Your task to perform on an android device: turn off sleep mode Image 0: 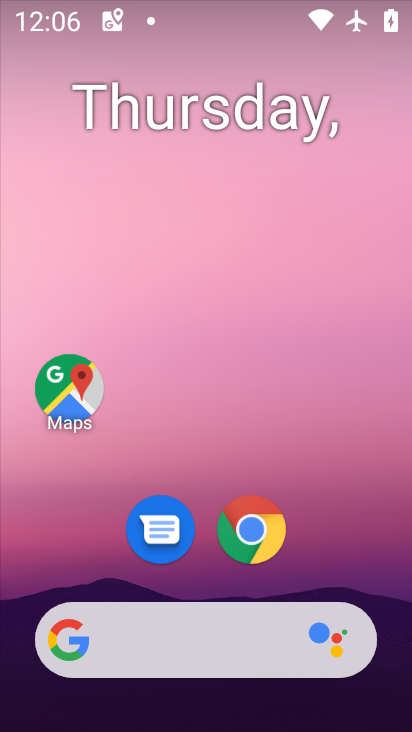
Step 0: drag from (379, 541) to (320, 100)
Your task to perform on an android device: turn off sleep mode Image 1: 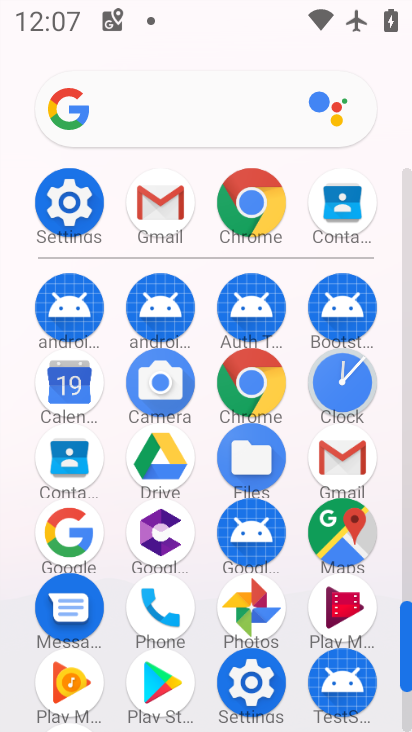
Step 1: click (408, 720)
Your task to perform on an android device: turn off sleep mode Image 2: 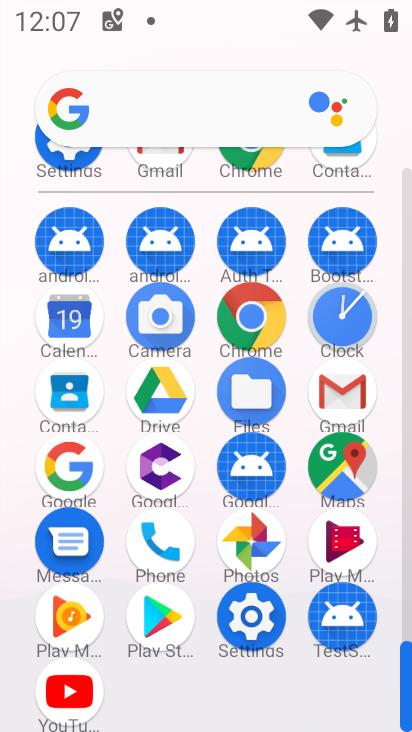
Step 2: click (255, 617)
Your task to perform on an android device: turn off sleep mode Image 3: 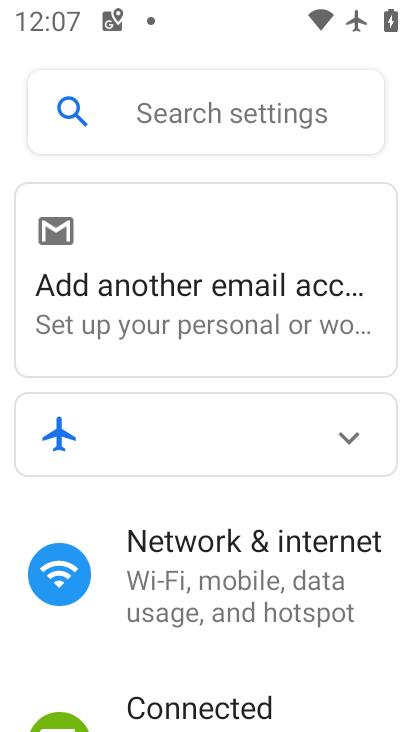
Step 3: drag from (340, 672) to (254, 183)
Your task to perform on an android device: turn off sleep mode Image 4: 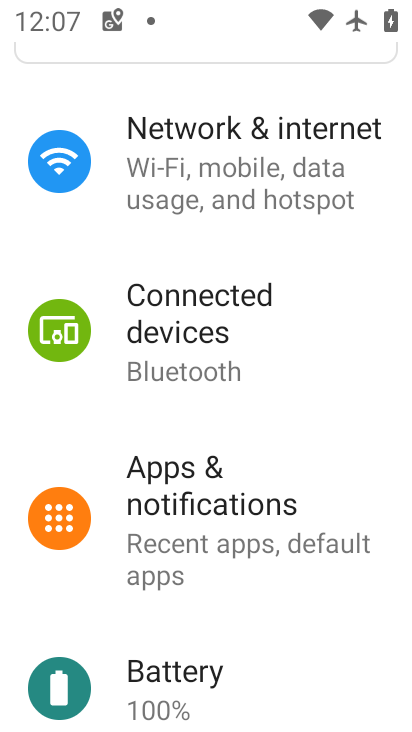
Step 4: drag from (319, 712) to (315, 206)
Your task to perform on an android device: turn off sleep mode Image 5: 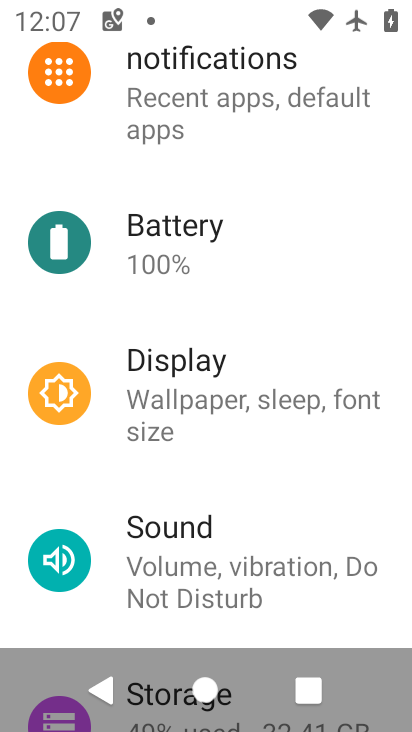
Step 5: drag from (243, 592) to (252, 63)
Your task to perform on an android device: turn off sleep mode Image 6: 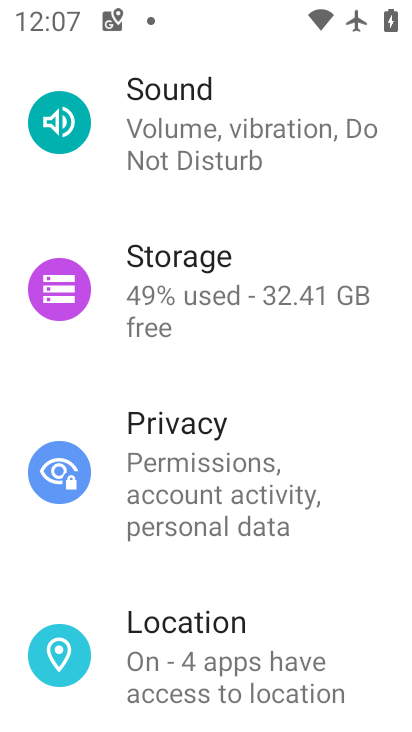
Step 6: drag from (318, 176) to (312, 574)
Your task to perform on an android device: turn off sleep mode Image 7: 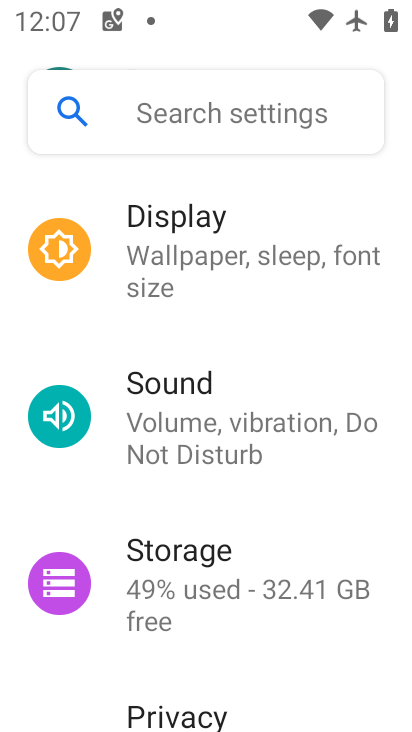
Step 7: click (174, 239)
Your task to perform on an android device: turn off sleep mode Image 8: 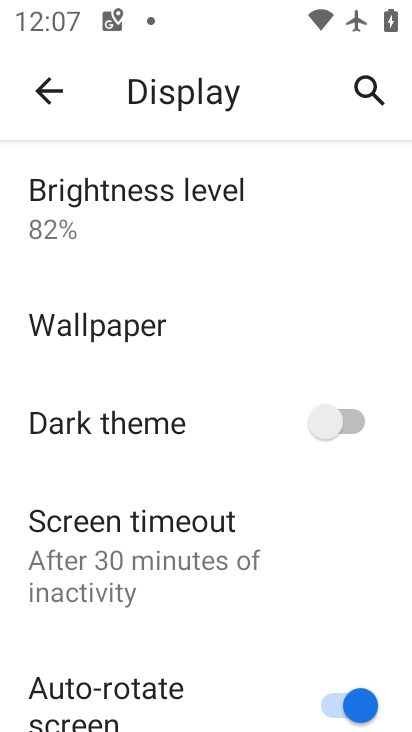
Step 8: drag from (257, 609) to (252, 251)
Your task to perform on an android device: turn off sleep mode Image 9: 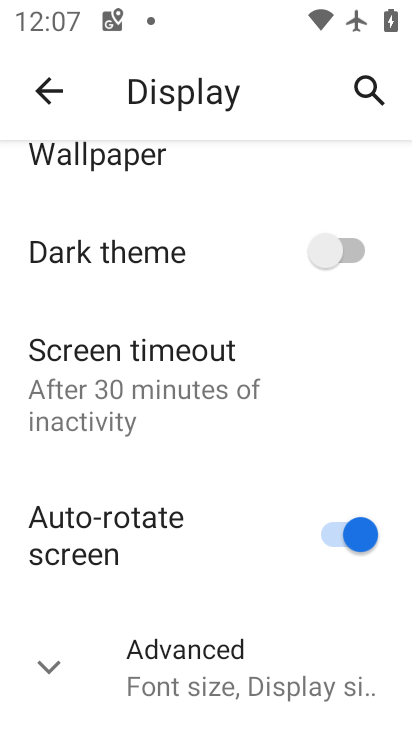
Step 9: click (51, 673)
Your task to perform on an android device: turn off sleep mode Image 10: 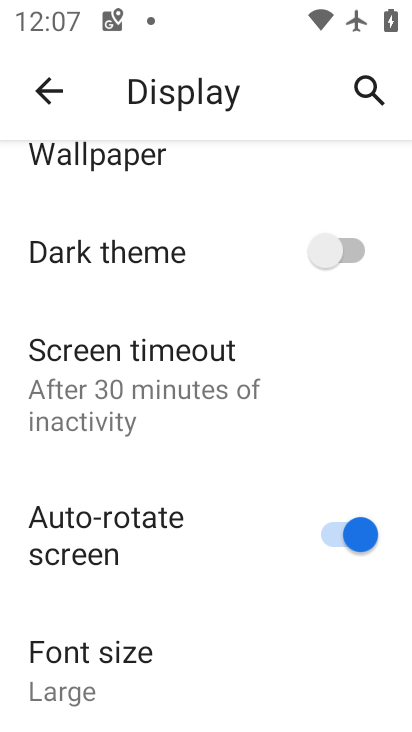
Step 10: task complete